Your task to perform on an android device: Search for seafood restaurants on Google Maps Image 0: 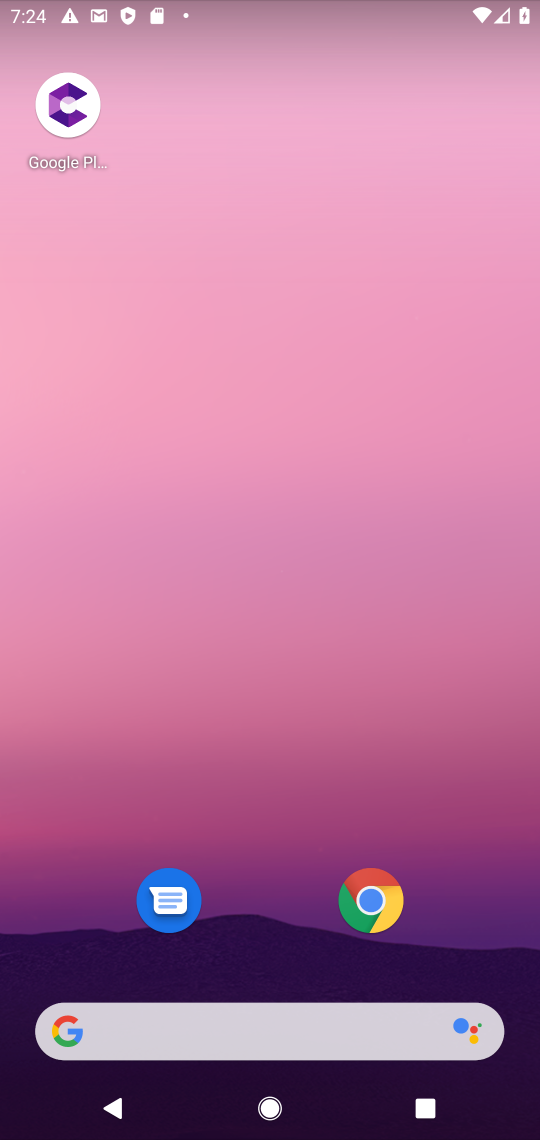
Step 0: drag from (257, 1010) to (334, 244)
Your task to perform on an android device: Search for seafood restaurants on Google Maps Image 1: 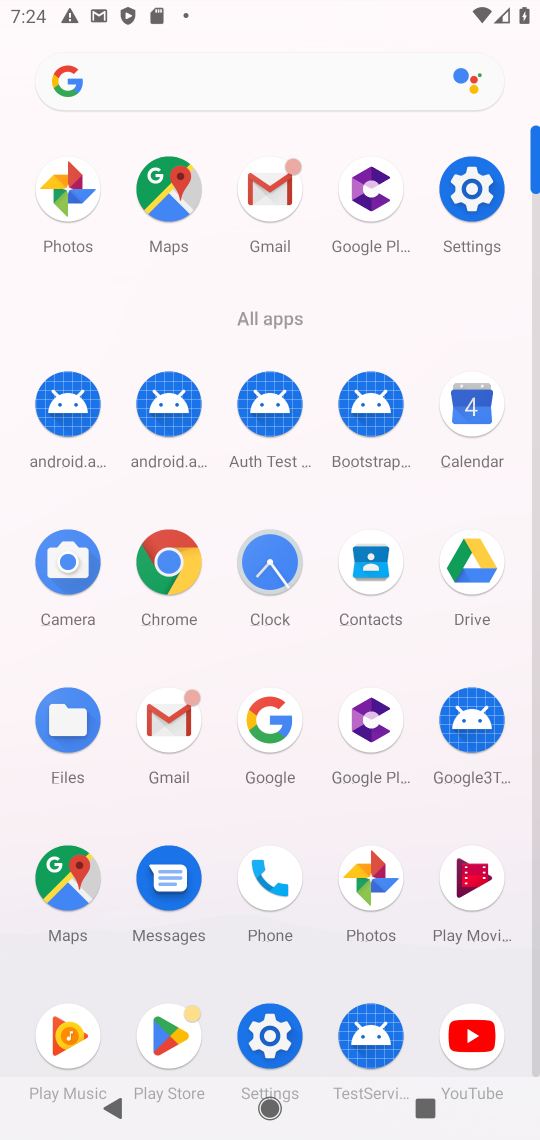
Step 1: click (168, 196)
Your task to perform on an android device: Search for seafood restaurants on Google Maps Image 2: 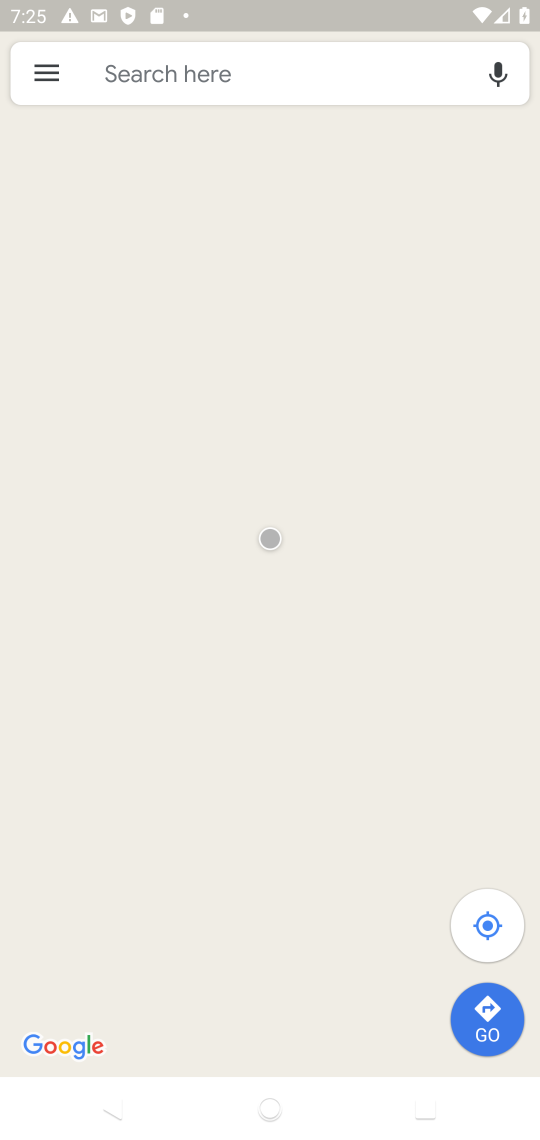
Step 2: click (275, 77)
Your task to perform on an android device: Search for seafood restaurants on Google Maps Image 3: 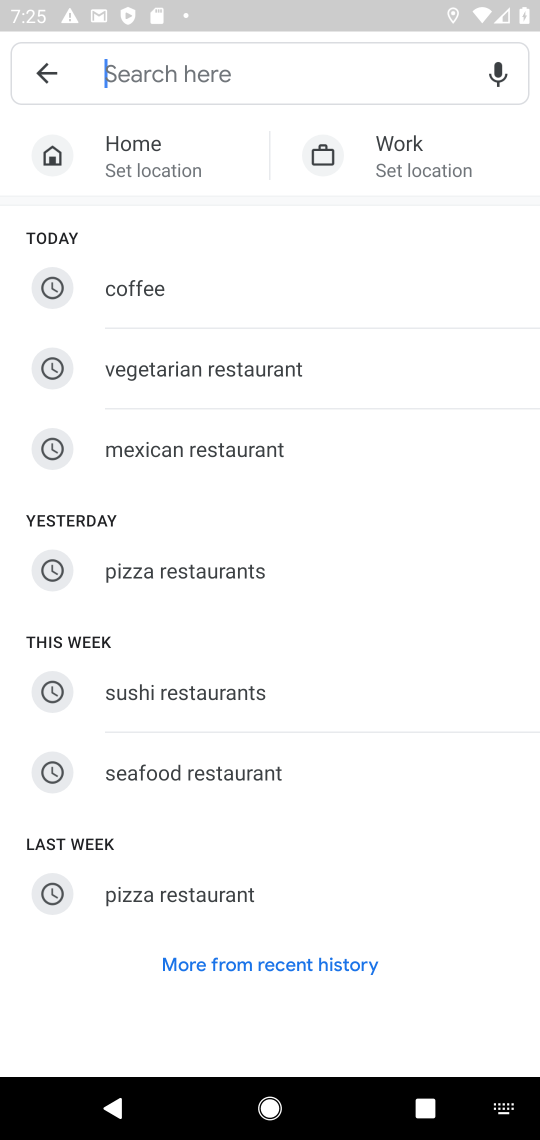
Step 3: type "seafood restaurants"
Your task to perform on an android device: Search for seafood restaurants on Google Maps Image 4: 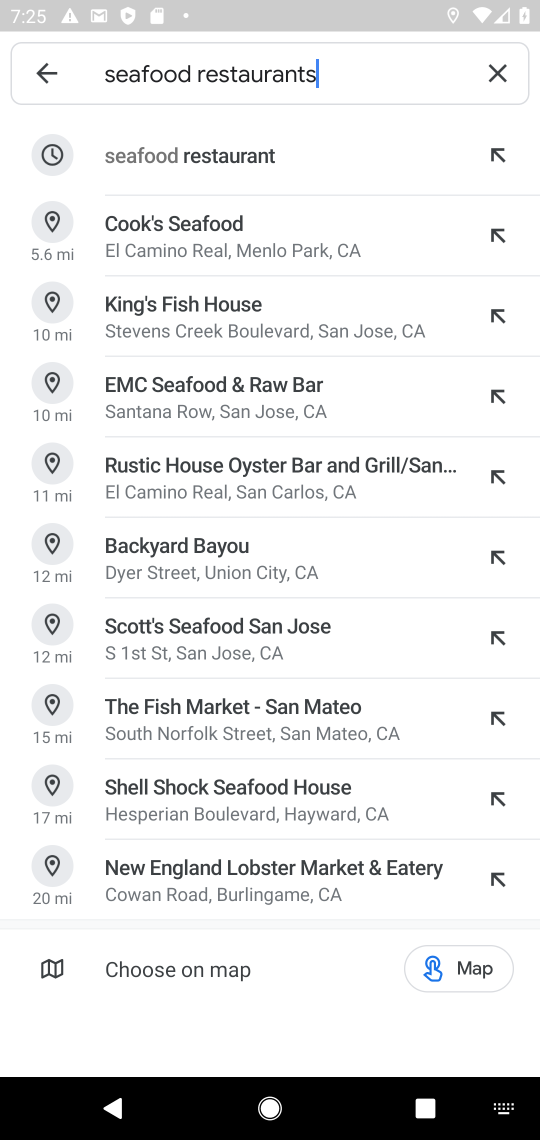
Step 4: click (203, 161)
Your task to perform on an android device: Search for seafood restaurants on Google Maps Image 5: 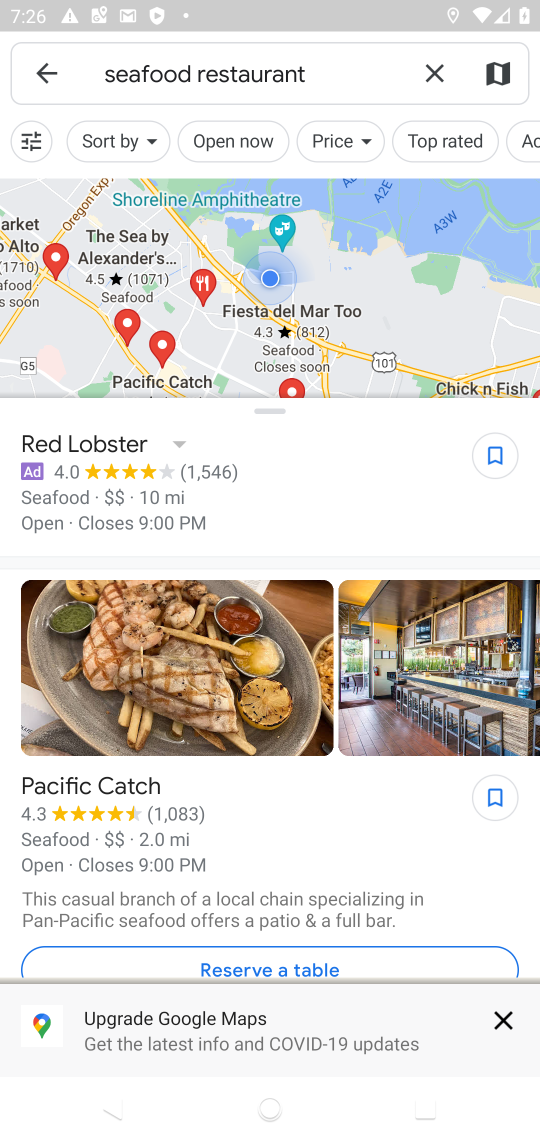
Step 5: task complete